Your task to perform on an android device: toggle show notifications on the lock screen Image 0: 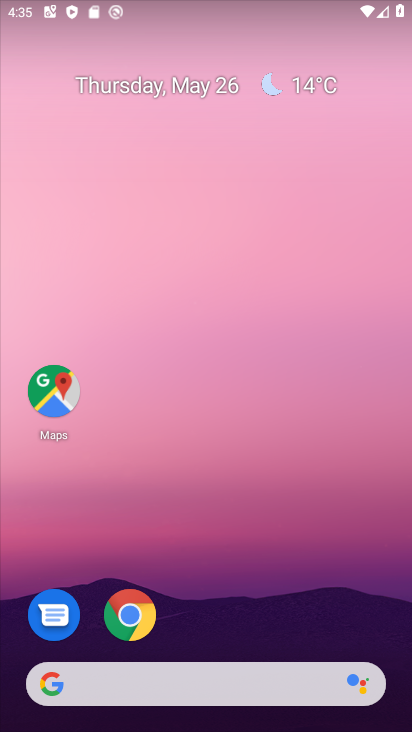
Step 0: drag from (231, 570) to (243, 186)
Your task to perform on an android device: toggle show notifications on the lock screen Image 1: 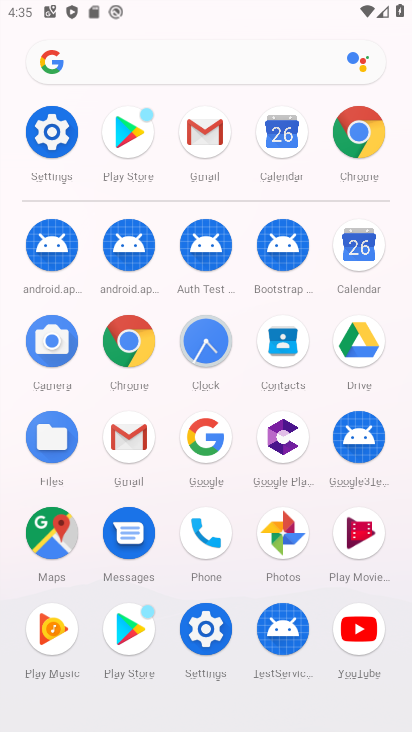
Step 1: click (61, 145)
Your task to perform on an android device: toggle show notifications on the lock screen Image 2: 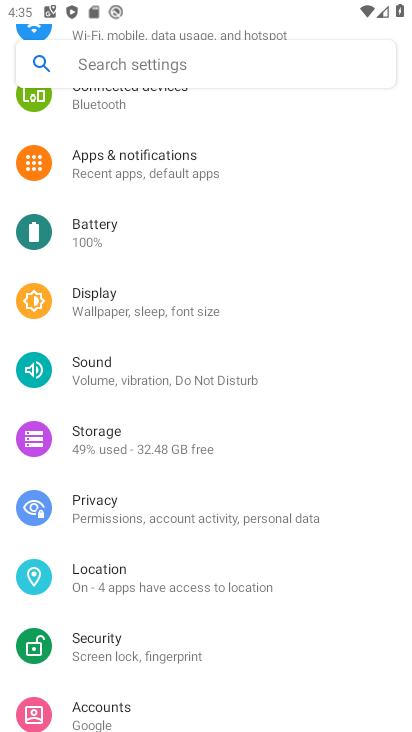
Step 2: drag from (191, 533) to (257, 374)
Your task to perform on an android device: toggle show notifications on the lock screen Image 3: 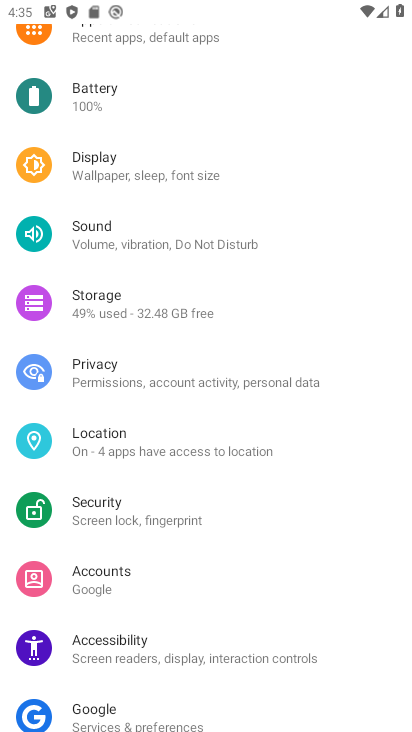
Step 3: drag from (145, 252) to (153, 594)
Your task to perform on an android device: toggle show notifications on the lock screen Image 4: 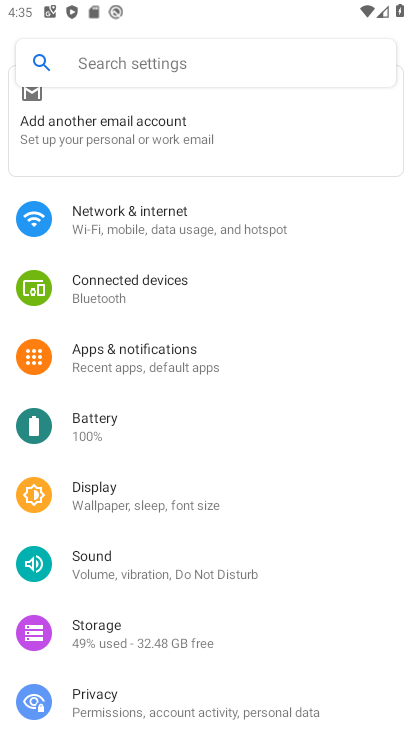
Step 4: click (124, 354)
Your task to perform on an android device: toggle show notifications on the lock screen Image 5: 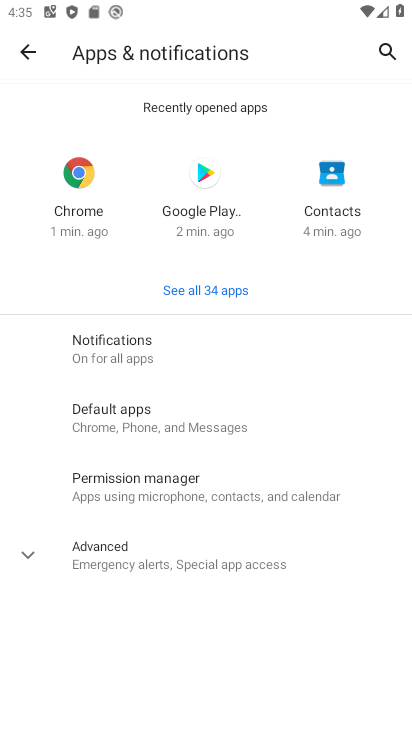
Step 5: click (124, 353)
Your task to perform on an android device: toggle show notifications on the lock screen Image 6: 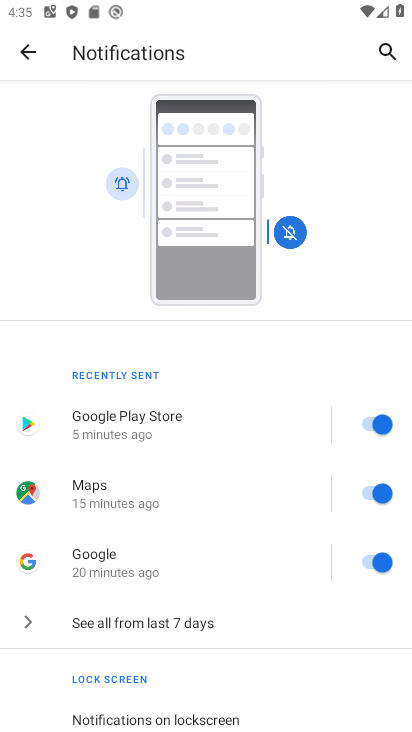
Step 6: drag from (235, 606) to (278, 214)
Your task to perform on an android device: toggle show notifications on the lock screen Image 7: 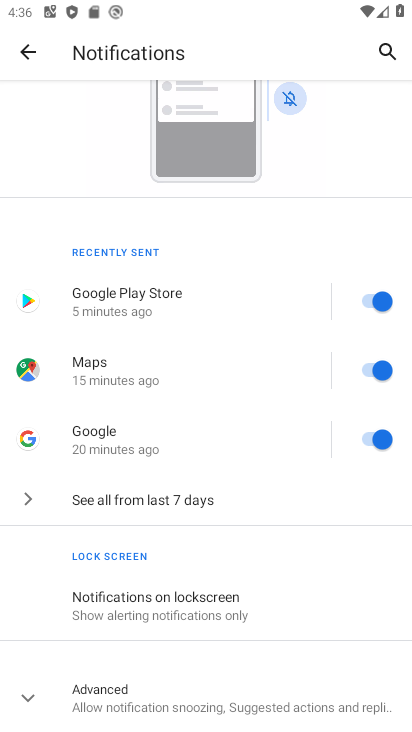
Step 7: click (217, 600)
Your task to perform on an android device: toggle show notifications on the lock screen Image 8: 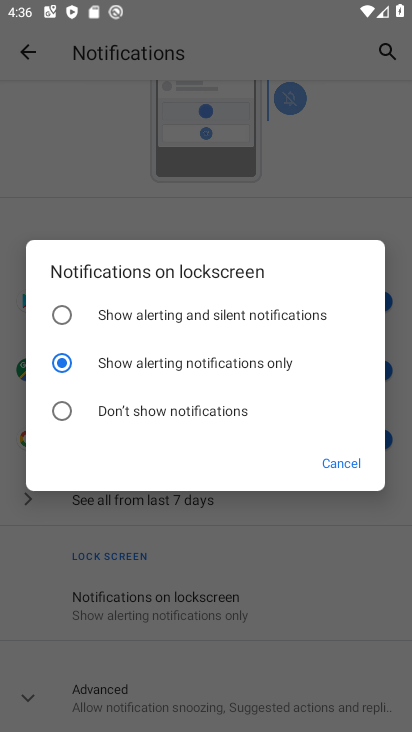
Step 8: click (187, 393)
Your task to perform on an android device: toggle show notifications on the lock screen Image 9: 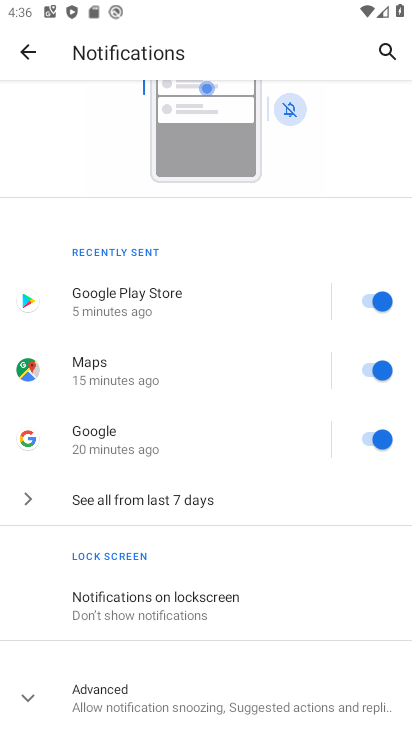
Step 9: task complete